Your task to perform on an android device: toggle sleep mode Image 0: 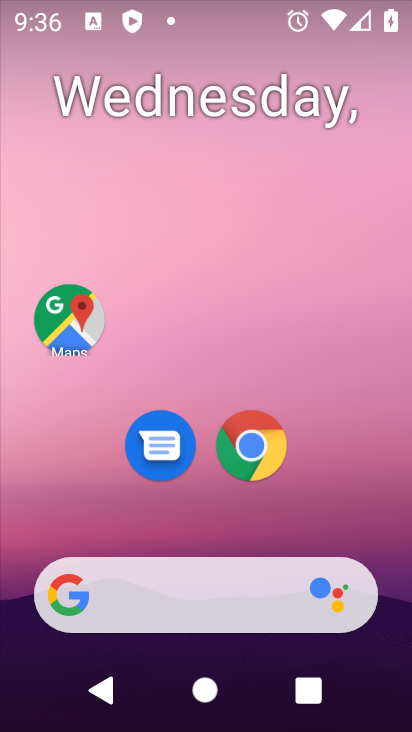
Step 0: drag from (396, 501) to (376, 36)
Your task to perform on an android device: toggle sleep mode Image 1: 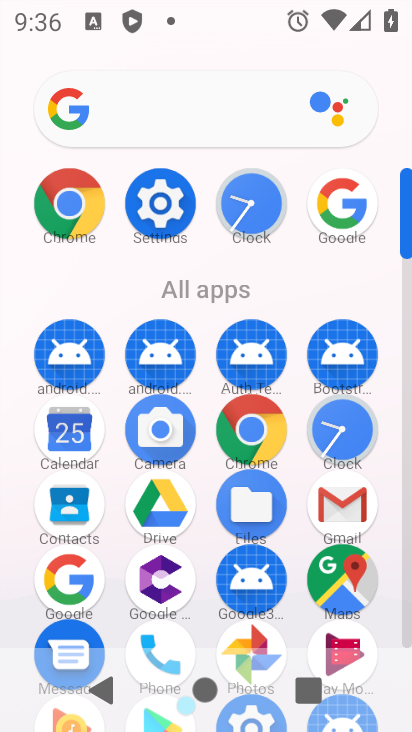
Step 1: click (148, 197)
Your task to perform on an android device: toggle sleep mode Image 2: 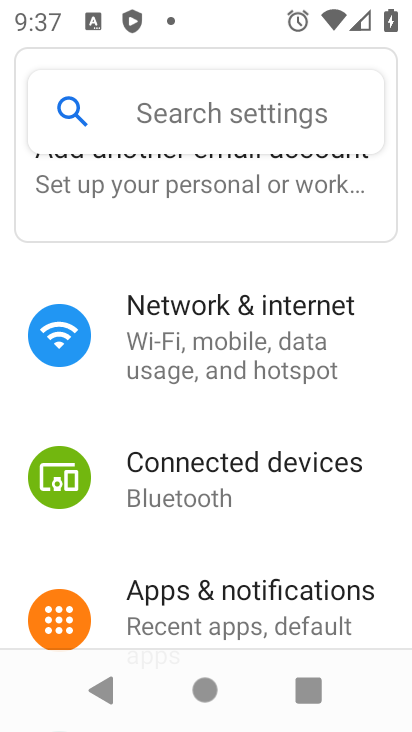
Step 2: drag from (244, 556) to (328, 159)
Your task to perform on an android device: toggle sleep mode Image 3: 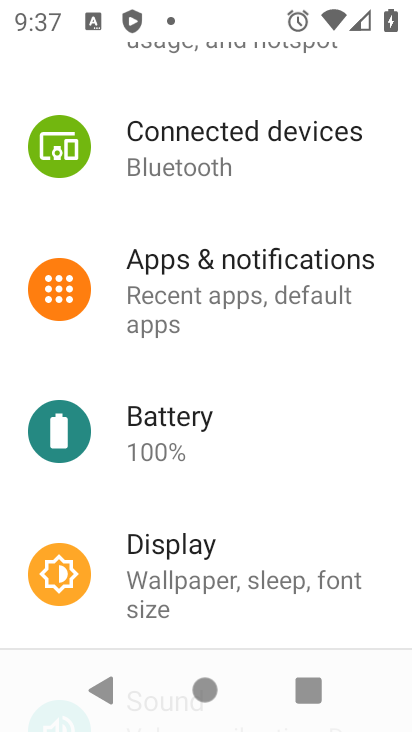
Step 3: click (179, 550)
Your task to perform on an android device: toggle sleep mode Image 4: 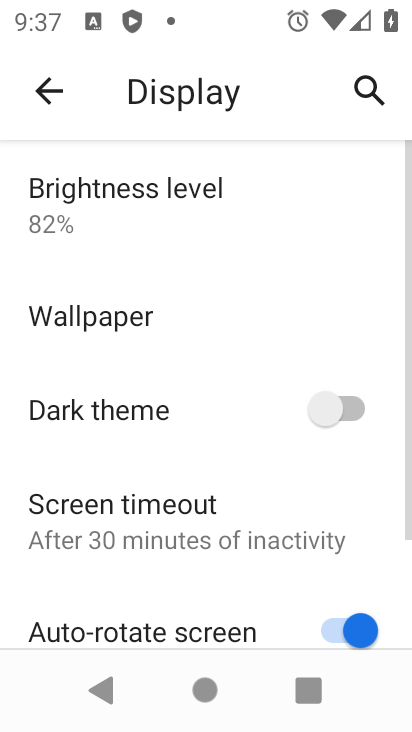
Step 4: drag from (182, 546) to (292, 238)
Your task to perform on an android device: toggle sleep mode Image 5: 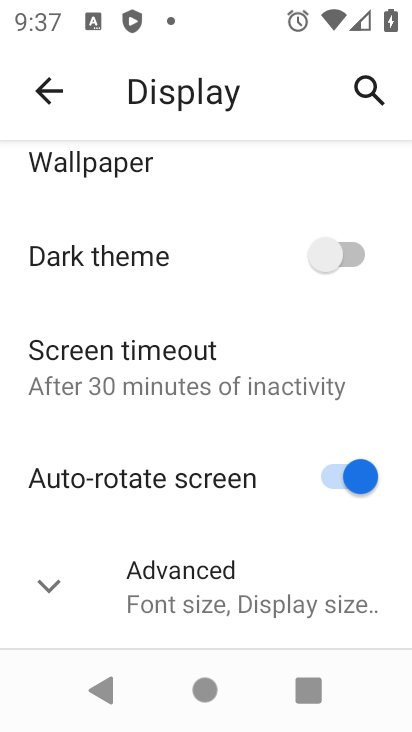
Step 5: click (168, 359)
Your task to perform on an android device: toggle sleep mode Image 6: 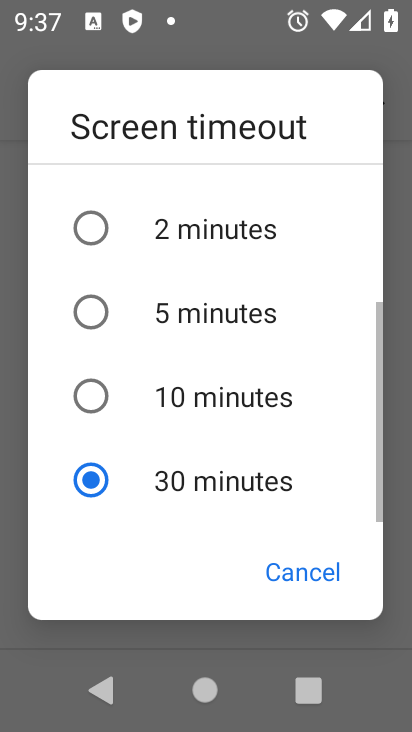
Step 6: click (156, 389)
Your task to perform on an android device: toggle sleep mode Image 7: 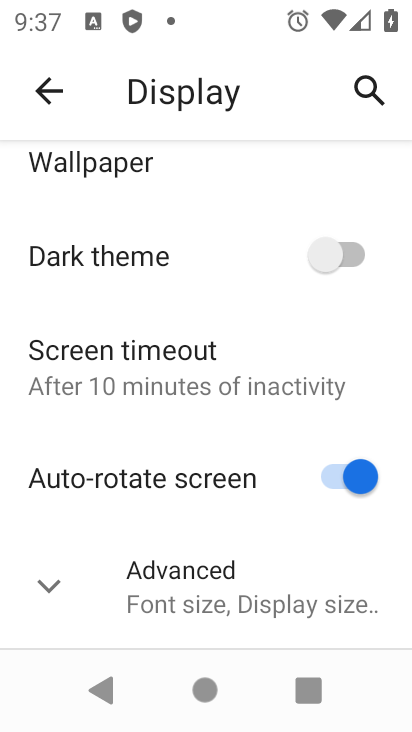
Step 7: task complete